Your task to perform on an android device: change the clock style Image 0: 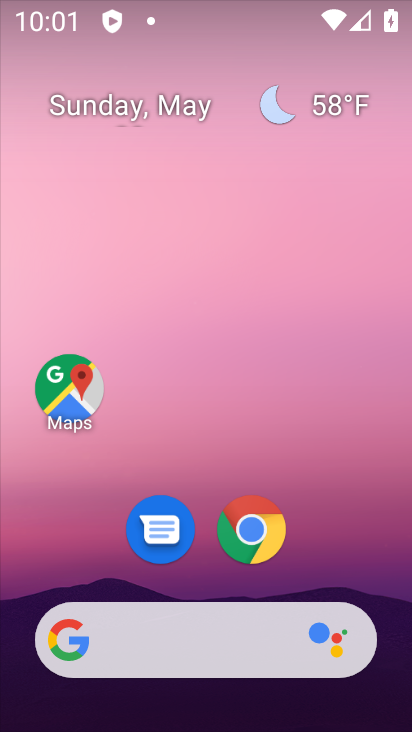
Step 0: drag from (180, 535) to (223, 0)
Your task to perform on an android device: change the clock style Image 1: 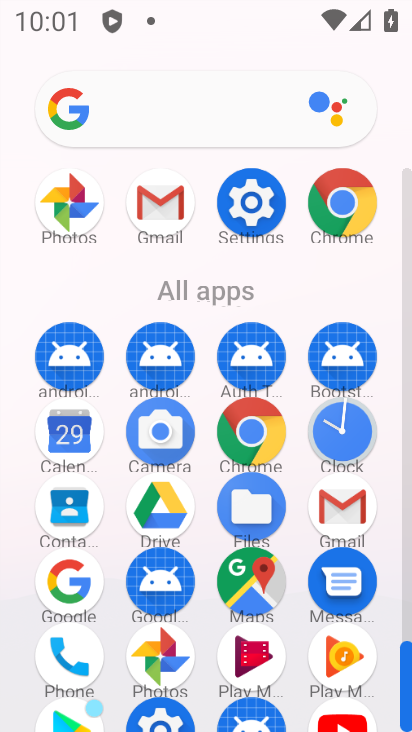
Step 1: click (350, 433)
Your task to perform on an android device: change the clock style Image 2: 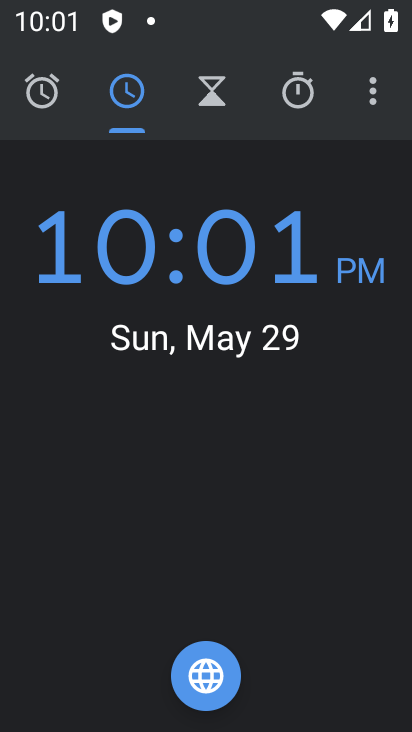
Step 2: click (384, 107)
Your task to perform on an android device: change the clock style Image 3: 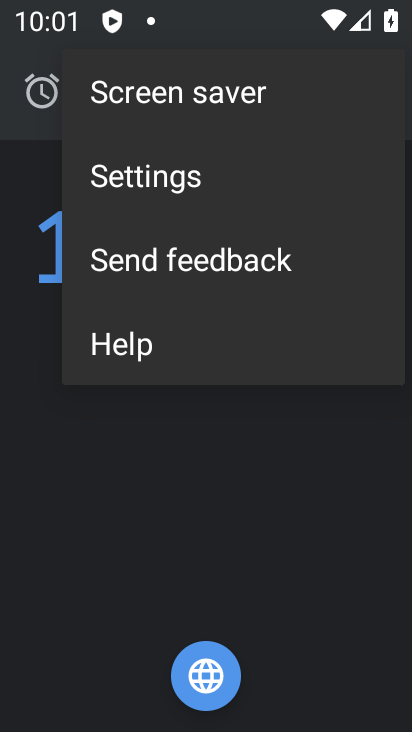
Step 3: click (181, 180)
Your task to perform on an android device: change the clock style Image 4: 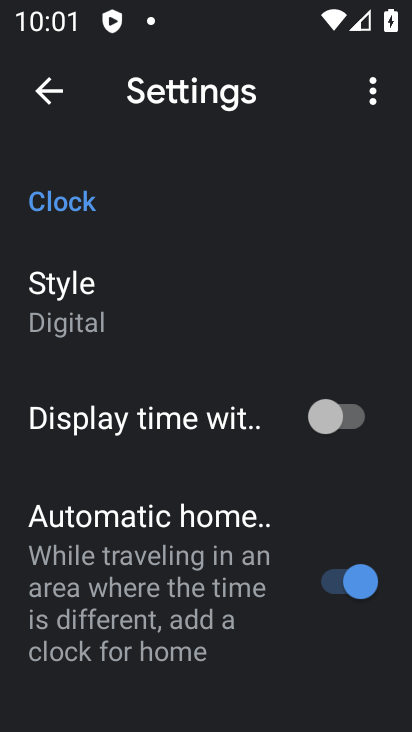
Step 4: click (98, 301)
Your task to perform on an android device: change the clock style Image 5: 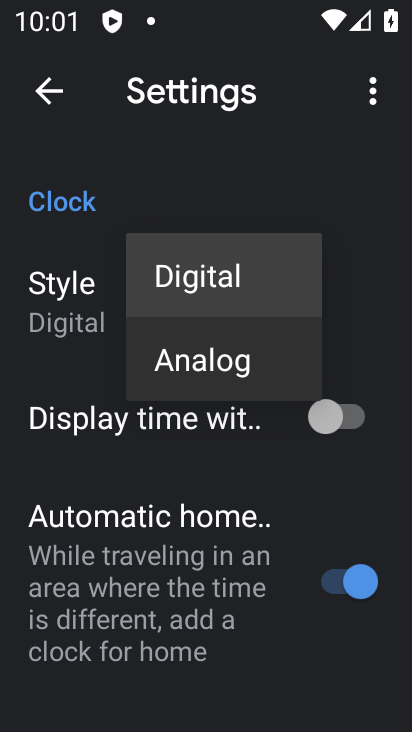
Step 5: click (213, 381)
Your task to perform on an android device: change the clock style Image 6: 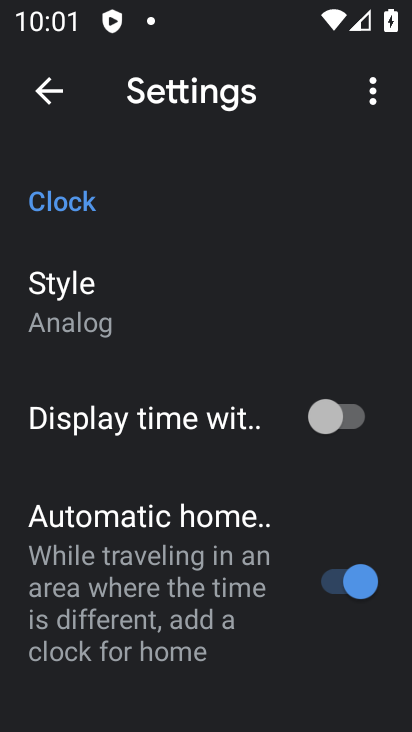
Step 6: task complete